Your task to perform on an android device: check data usage Image 0: 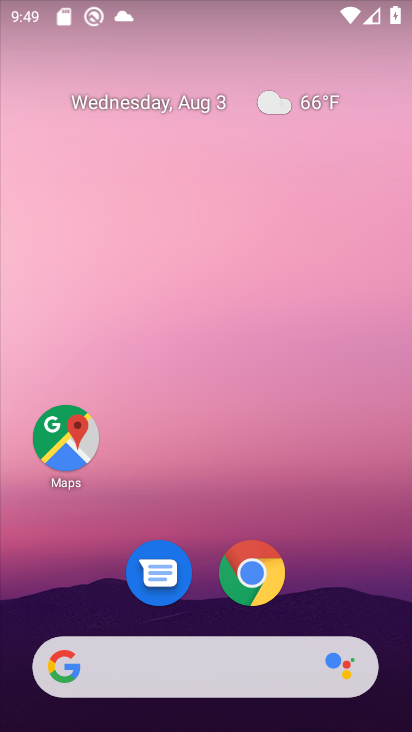
Step 0: drag from (197, 655) to (206, 14)
Your task to perform on an android device: check data usage Image 1: 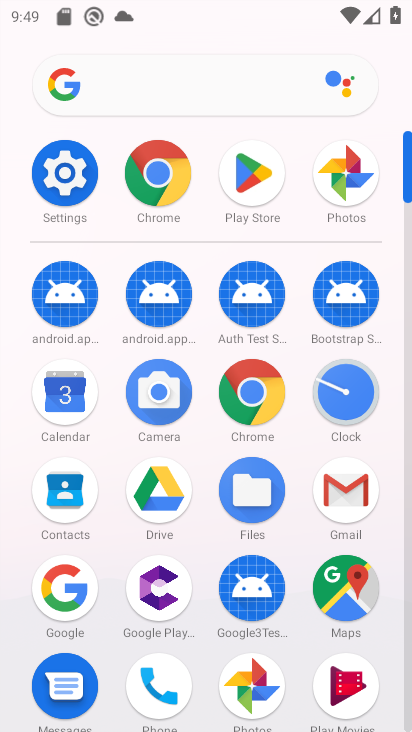
Step 1: click (68, 165)
Your task to perform on an android device: check data usage Image 2: 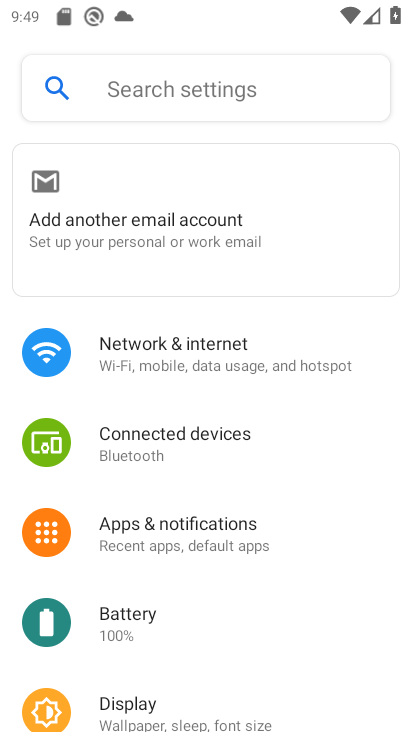
Step 2: click (131, 350)
Your task to perform on an android device: check data usage Image 3: 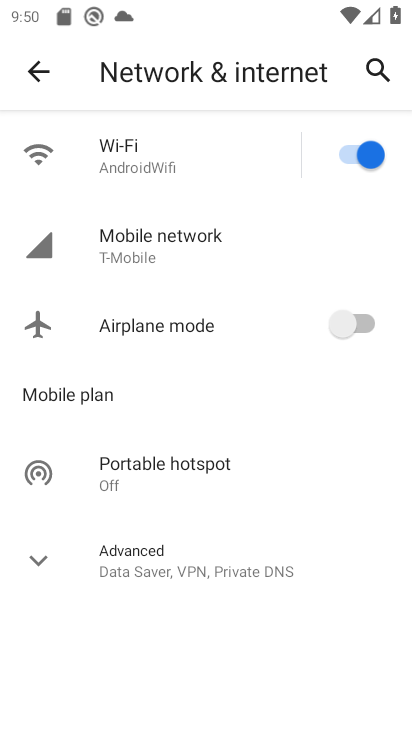
Step 3: click (133, 243)
Your task to perform on an android device: check data usage Image 4: 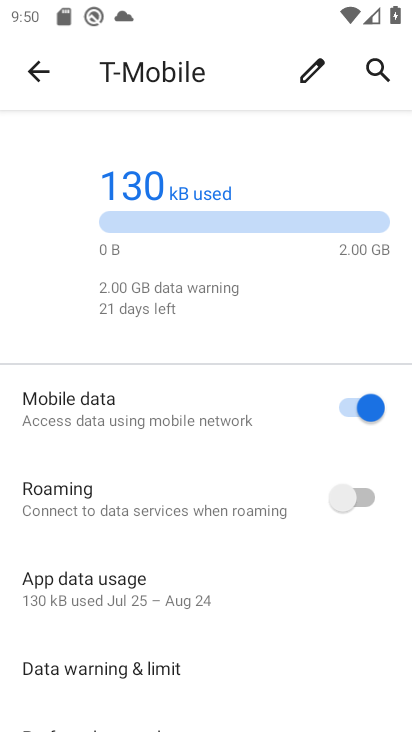
Step 4: task complete